Your task to perform on an android device: change notification settings in the gmail app Image 0: 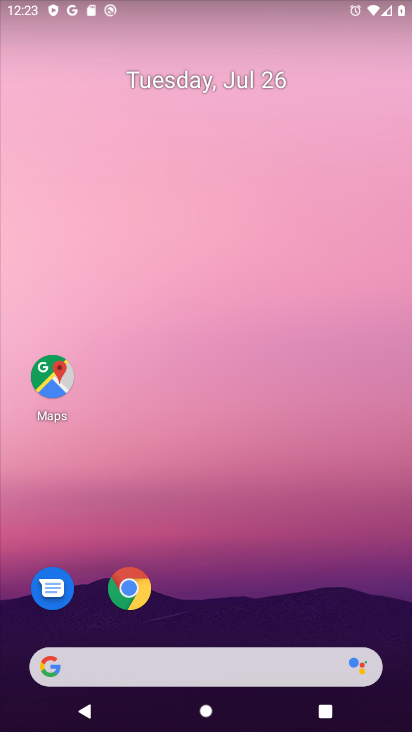
Step 0: drag from (316, 603) to (198, 135)
Your task to perform on an android device: change notification settings in the gmail app Image 1: 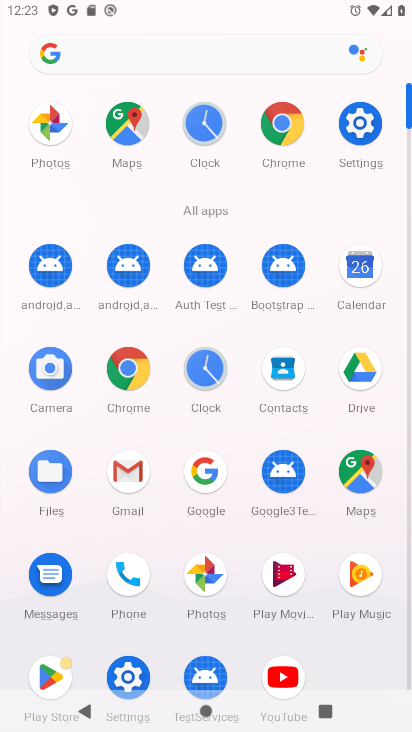
Step 1: click (365, 124)
Your task to perform on an android device: change notification settings in the gmail app Image 2: 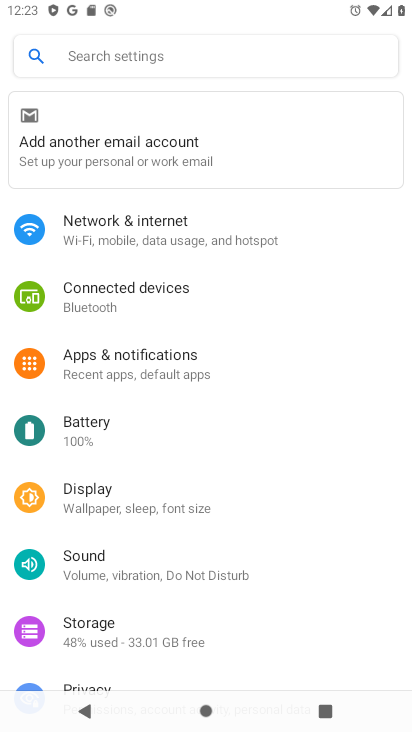
Step 2: click (210, 363)
Your task to perform on an android device: change notification settings in the gmail app Image 3: 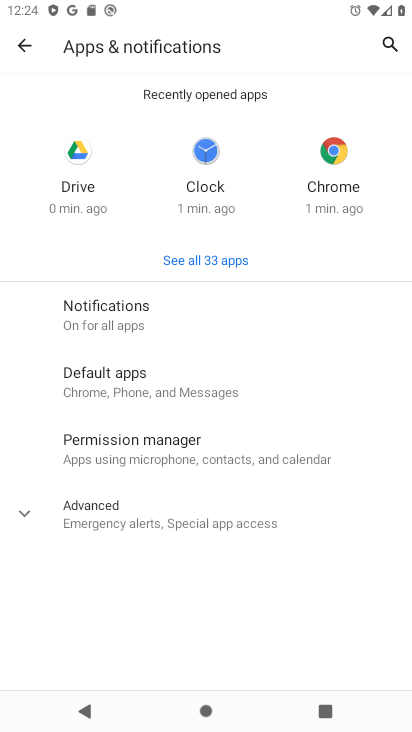
Step 3: click (225, 322)
Your task to perform on an android device: change notification settings in the gmail app Image 4: 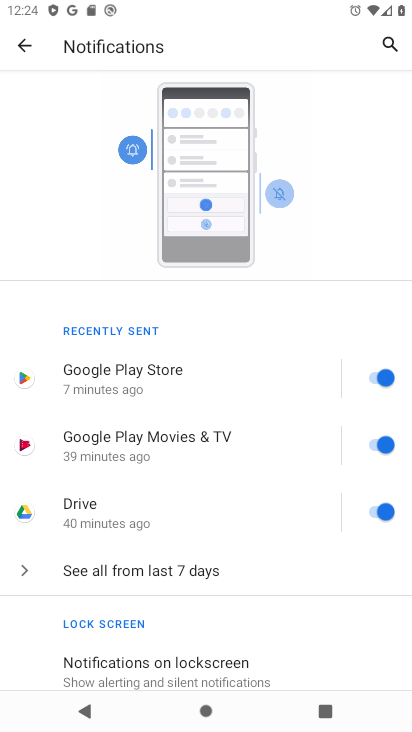
Step 4: drag from (266, 639) to (248, 135)
Your task to perform on an android device: change notification settings in the gmail app Image 5: 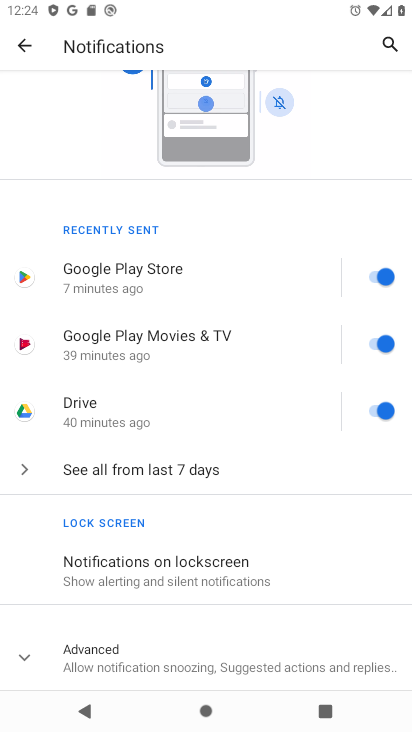
Step 5: click (278, 659)
Your task to perform on an android device: change notification settings in the gmail app Image 6: 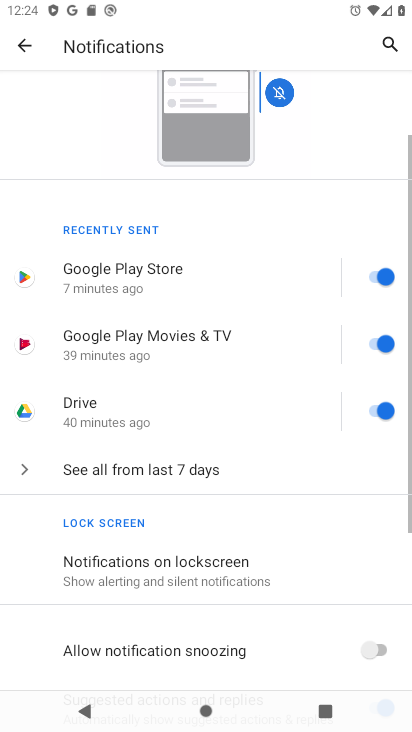
Step 6: drag from (288, 617) to (254, 142)
Your task to perform on an android device: change notification settings in the gmail app Image 7: 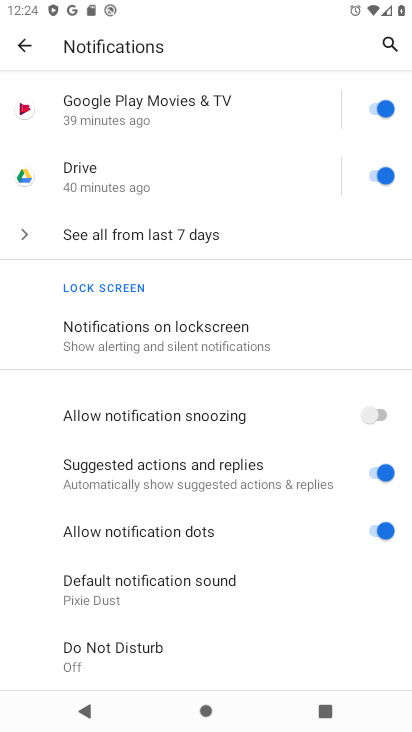
Step 7: click (381, 526)
Your task to perform on an android device: change notification settings in the gmail app Image 8: 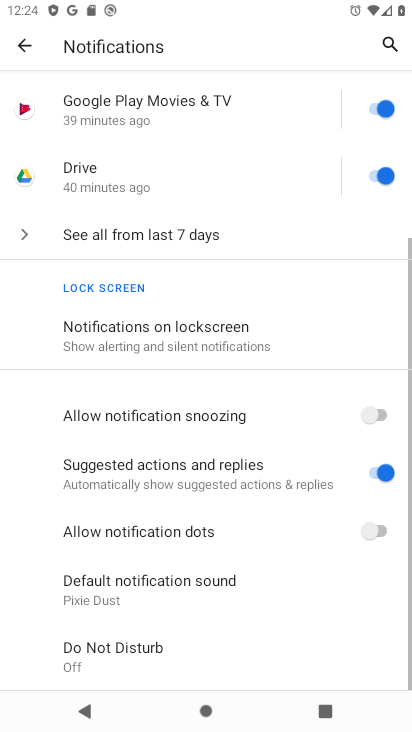
Step 8: click (378, 467)
Your task to perform on an android device: change notification settings in the gmail app Image 9: 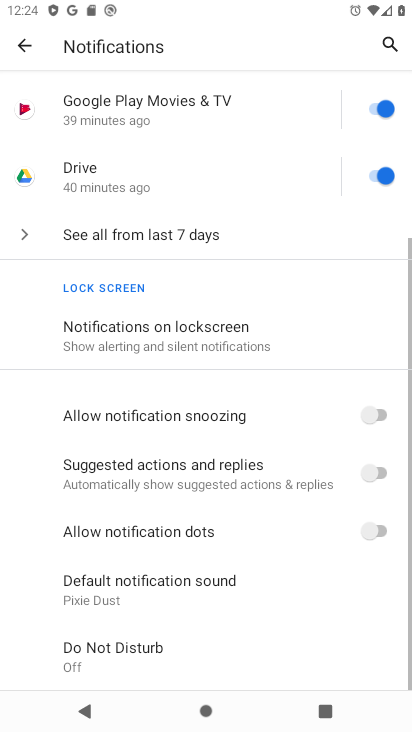
Step 9: click (373, 417)
Your task to perform on an android device: change notification settings in the gmail app Image 10: 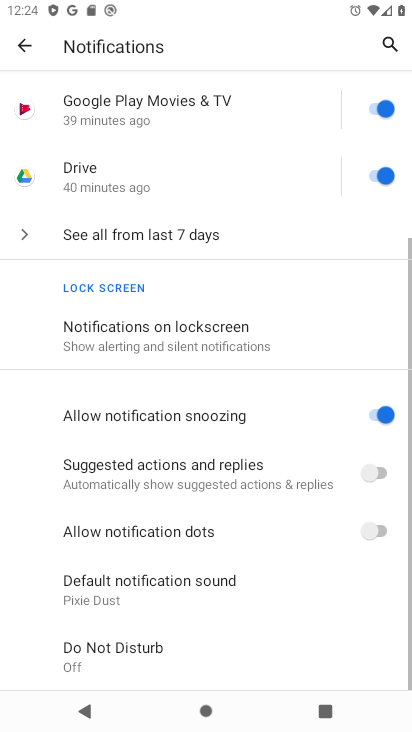
Step 10: task complete